Your task to perform on an android device: Go to Amazon Image 0: 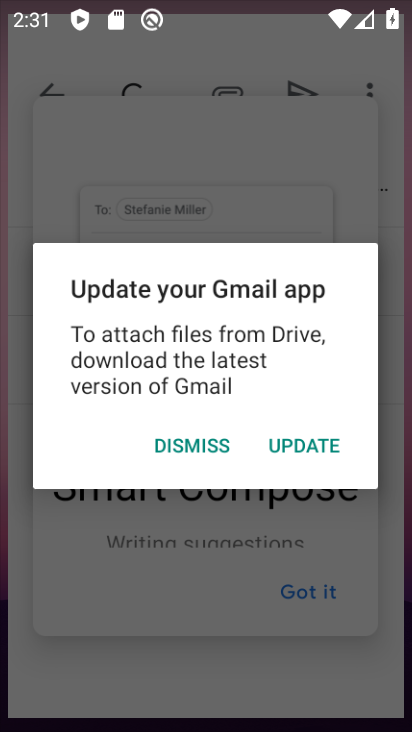
Step 0: click (253, 546)
Your task to perform on an android device: Go to Amazon Image 1: 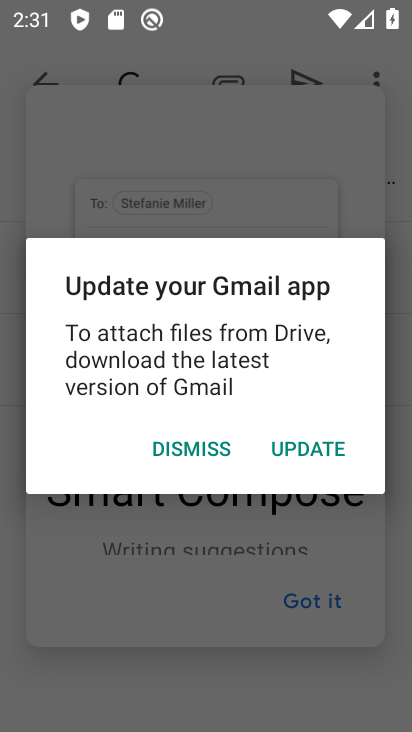
Step 1: press home button
Your task to perform on an android device: Go to Amazon Image 2: 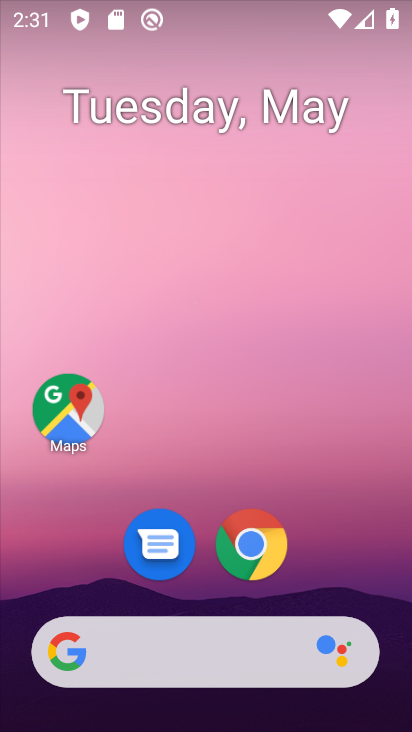
Step 2: click (249, 539)
Your task to perform on an android device: Go to Amazon Image 3: 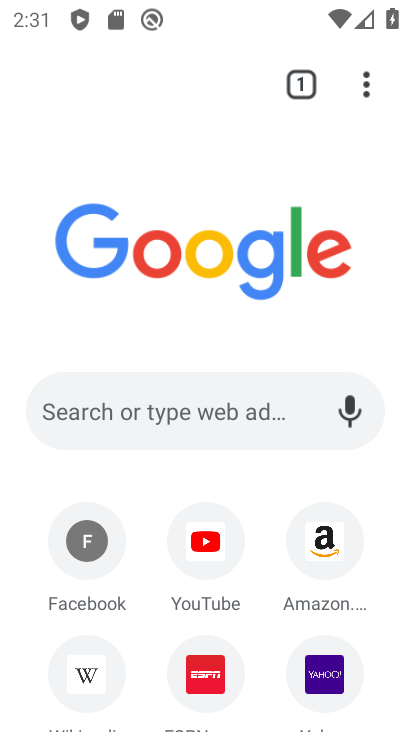
Step 3: click (330, 539)
Your task to perform on an android device: Go to Amazon Image 4: 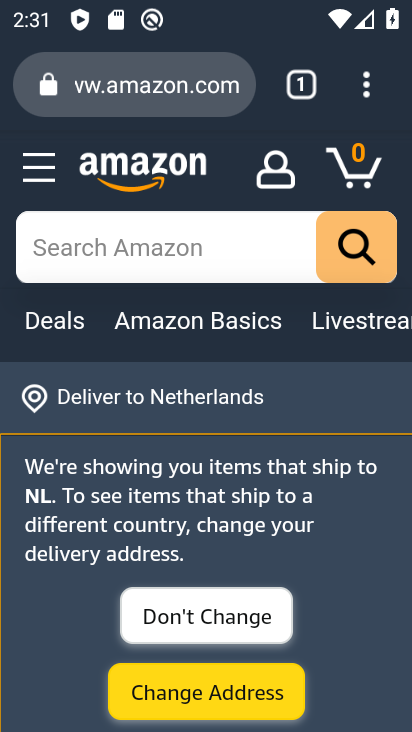
Step 4: task complete